Your task to perform on an android device: Open the phone app and click the voicemail tab. Image 0: 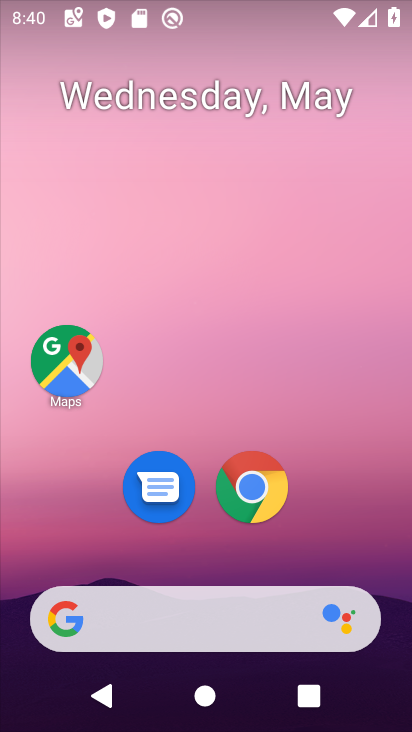
Step 0: press home button
Your task to perform on an android device: Open the phone app and click the voicemail tab. Image 1: 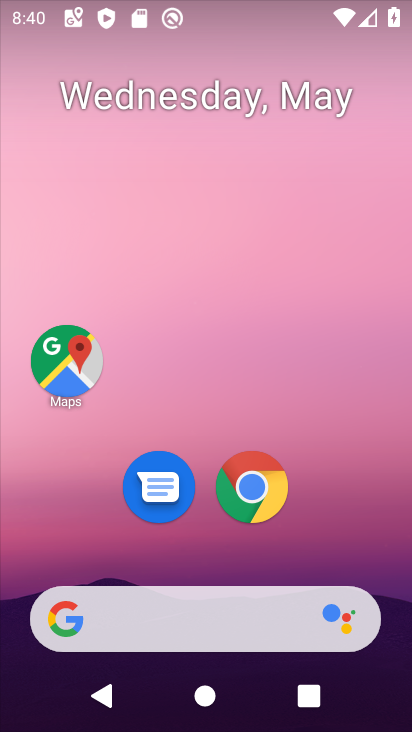
Step 1: drag from (206, 567) to (230, 128)
Your task to perform on an android device: Open the phone app and click the voicemail tab. Image 2: 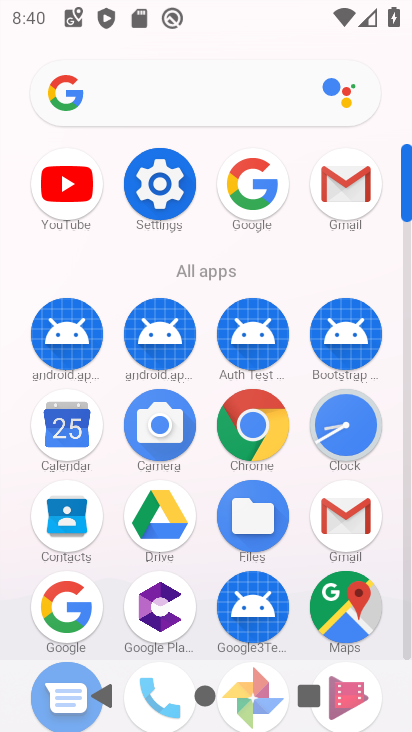
Step 2: drag from (207, 553) to (248, 113)
Your task to perform on an android device: Open the phone app and click the voicemail tab. Image 3: 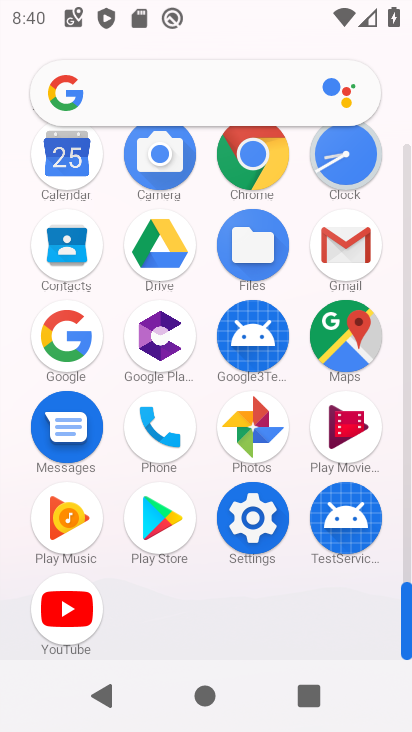
Step 3: click (169, 429)
Your task to perform on an android device: Open the phone app and click the voicemail tab. Image 4: 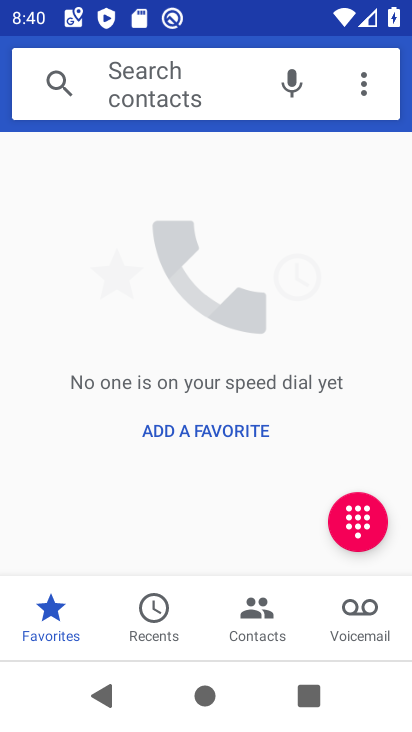
Step 4: click (359, 604)
Your task to perform on an android device: Open the phone app and click the voicemail tab. Image 5: 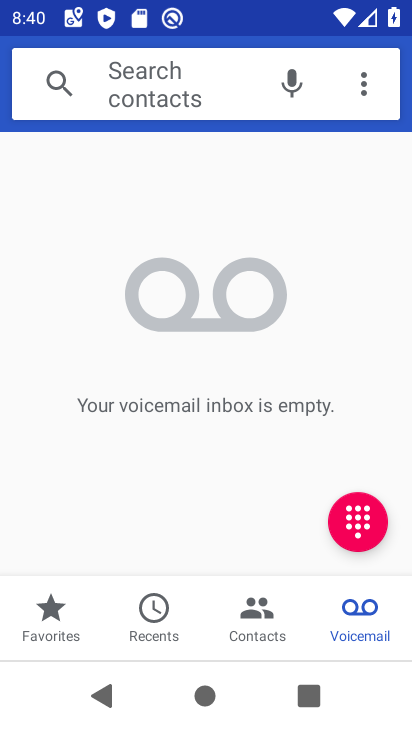
Step 5: task complete